Your task to perform on an android device: Play the last video I watched on Youtube Image 0: 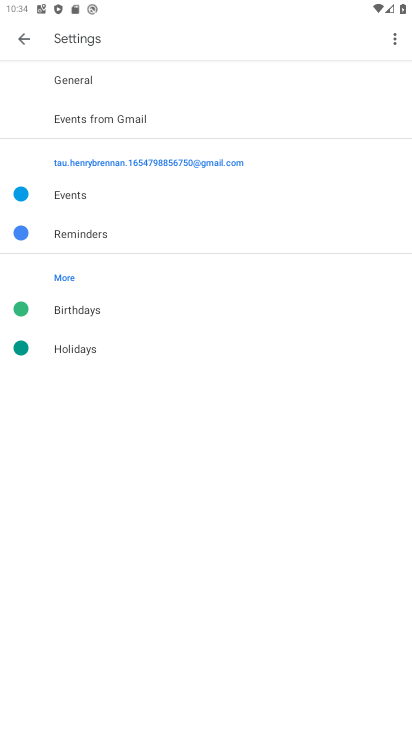
Step 0: press home button
Your task to perform on an android device: Play the last video I watched on Youtube Image 1: 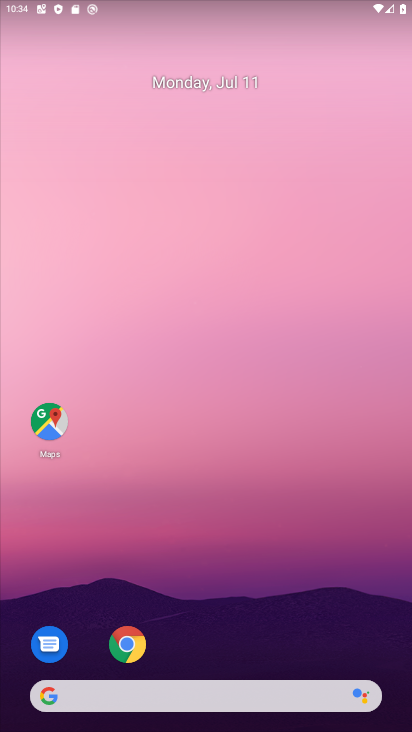
Step 1: drag from (193, 621) to (232, 47)
Your task to perform on an android device: Play the last video I watched on Youtube Image 2: 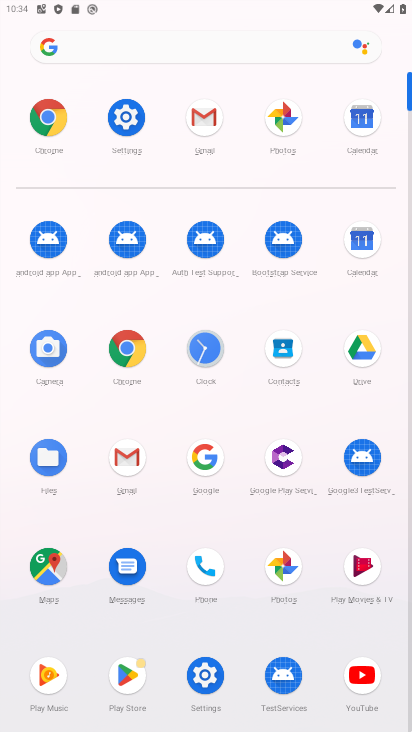
Step 2: click (362, 676)
Your task to perform on an android device: Play the last video I watched on Youtube Image 3: 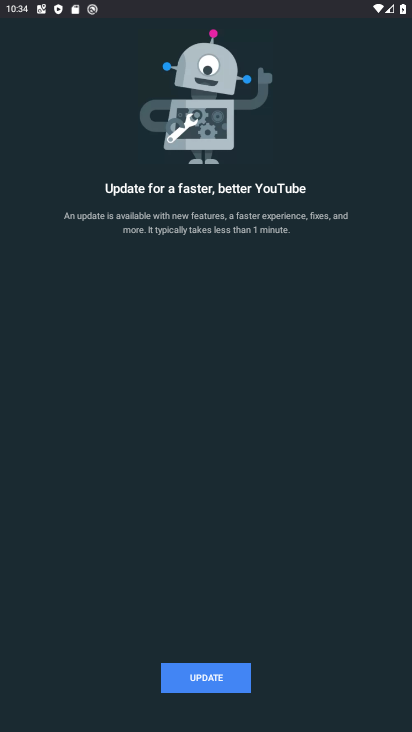
Step 3: click (221, 683)
Your task to perform on an android device: Play the last video I watched on Youtube Image 4: 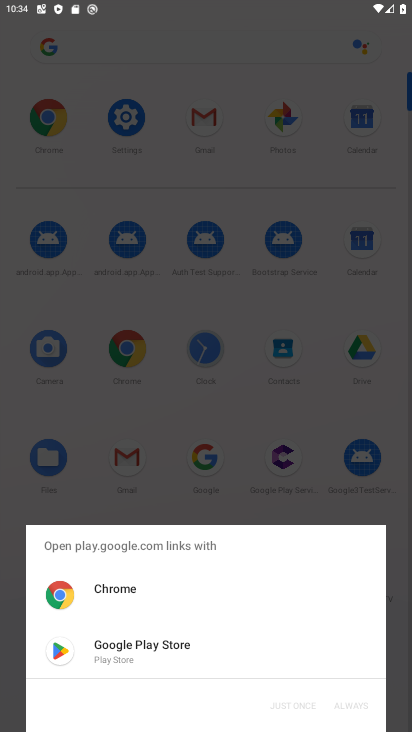
Step 4: click (110, 651)
Your task to perform on an android device: Play the last video I watched on Youtube Image 5: 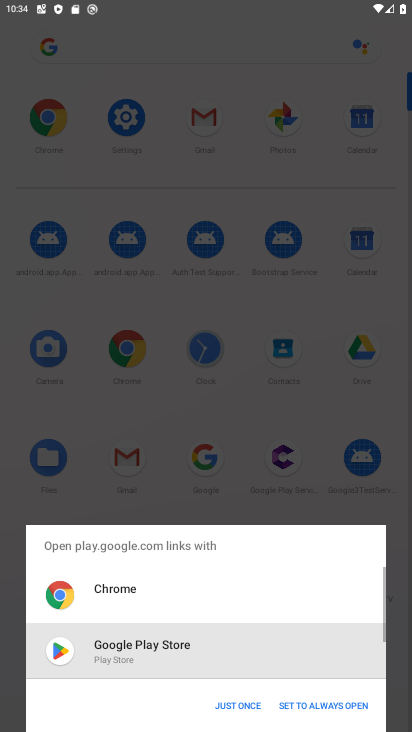
Step 5: click (239, 706)
Your task to perform on an android device: Play the last video I watched on Youtube Image 6: 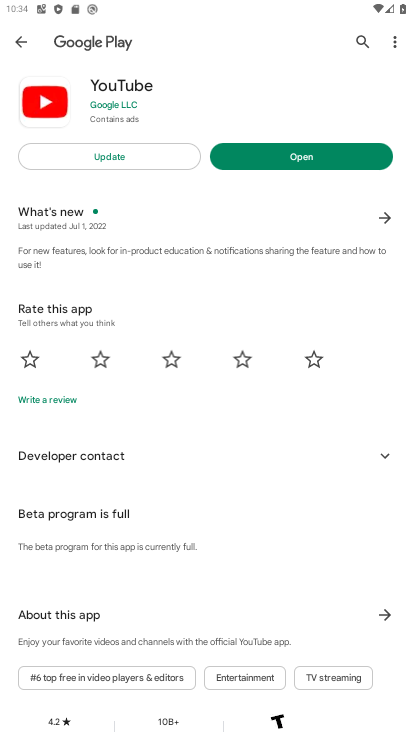
Step 6: click (119, 158)
Your task to perform on an android device: Play the last video I watched on Youtube Image 7: 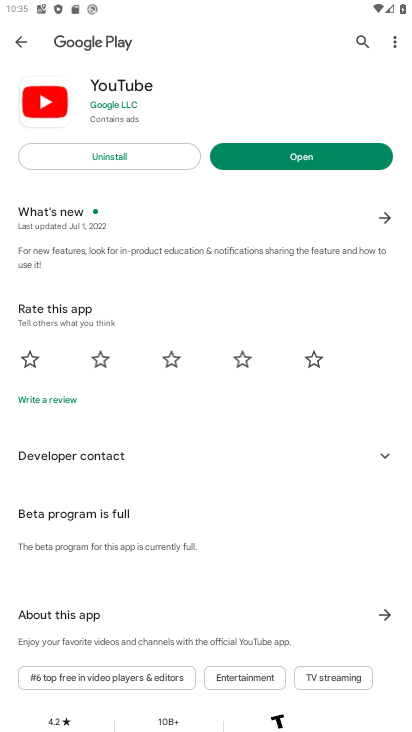
Step 7: click (249, 159)
Your task to perform on an android device: Play the last video I watched on Youtube Image 8: 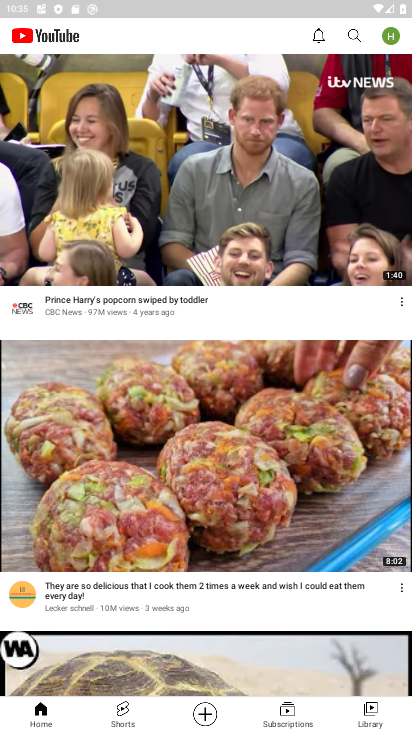
Step 8: click (371, 708)
Your task to perform on an android device: Play the last video I watched on Youtube Image 9: 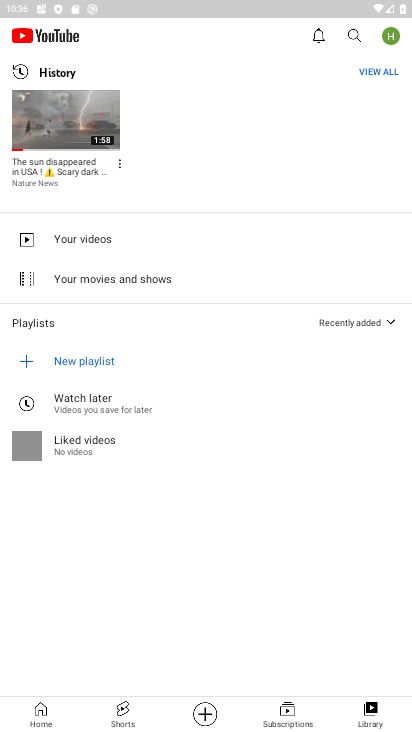
Step 9: click (76, 116)
Your task to perform on an android device: Play the last video I watched on Youtube Image 10: 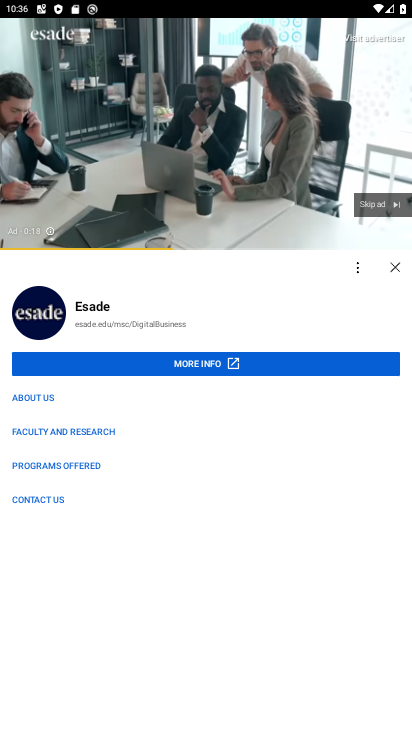
Step 10: task complete